Your task to perform on an android device: Open Google Maps and go to "Timeline" Image 0: 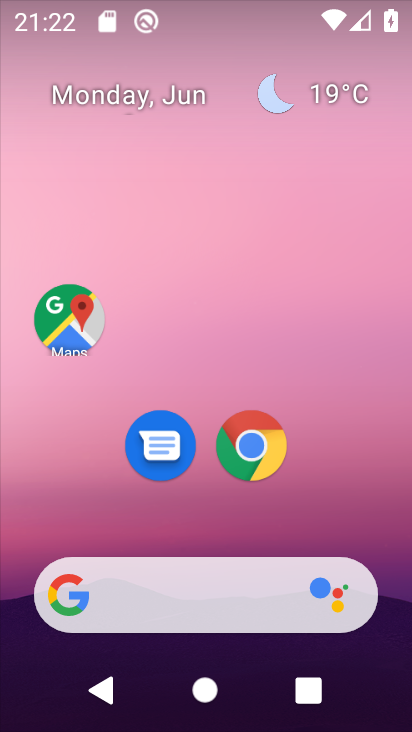
Step 0: click (62, 319)
Your task to perform on an android device: Open Google Maps and go to "Timeline" Image 1: 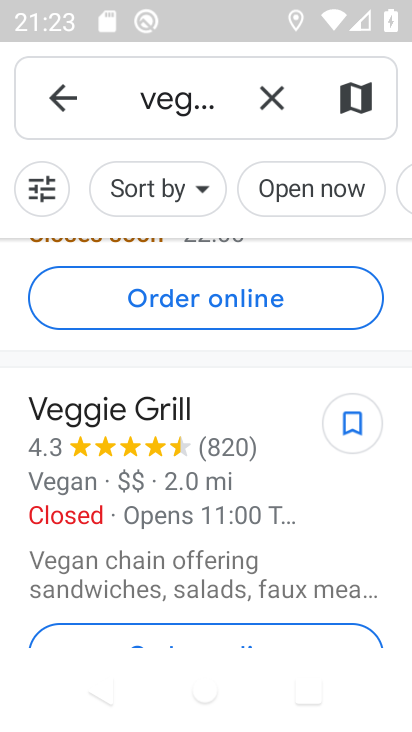
Step 1: click (51, 99)
Your task to perform on an android device: Open Google Maps and go to "Timeline" Image 2: 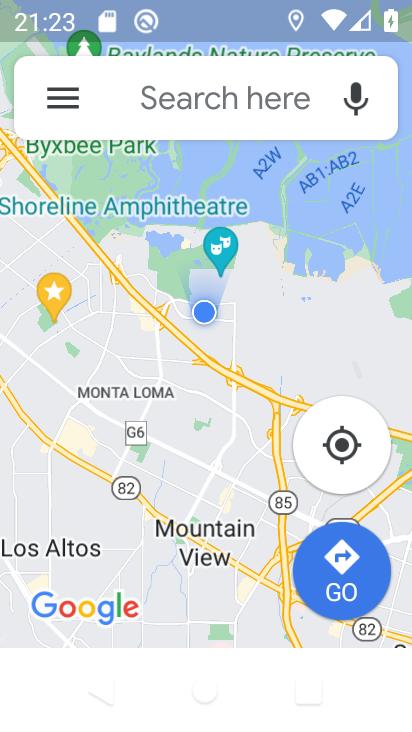
Step 2: click (56, 103)
Your task to perform on an android device: Open Google Maps and go to "Timeline" Image 3: 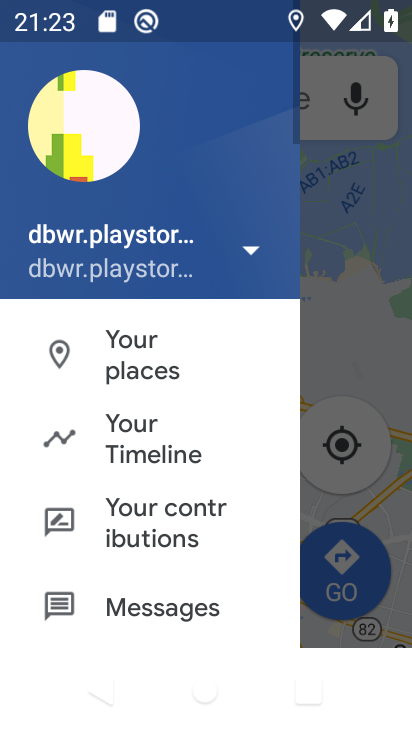
Step 3: click (137, 442)
Your task to perform on an android device: Open Google Maps and go to "Timeline" Image 4: 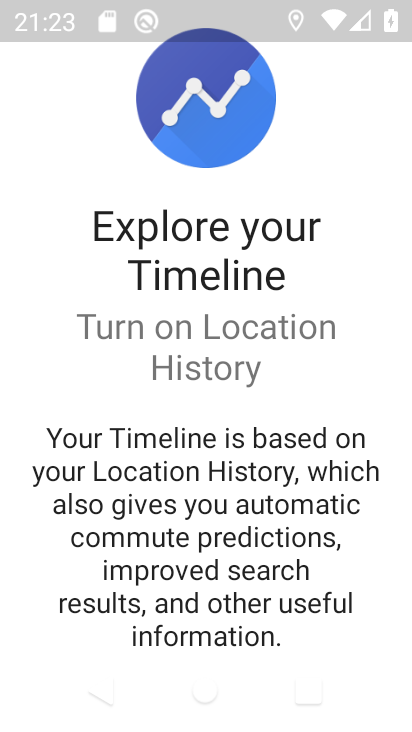
Step 4: drag from (231, 601) to (220, 221)
Your task to perform on an android device: Open Google Maps and go to "Timeline" Image 5: 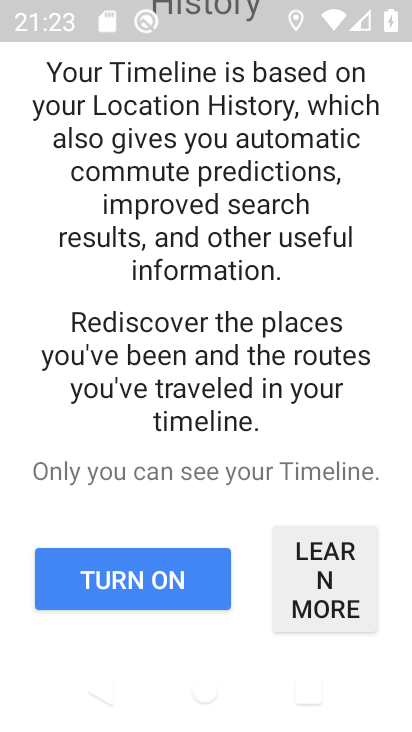
Step 5: click (143, 583)
Your task to perform on an android device: Open Google Maps and go to "Timeline" Image 6: 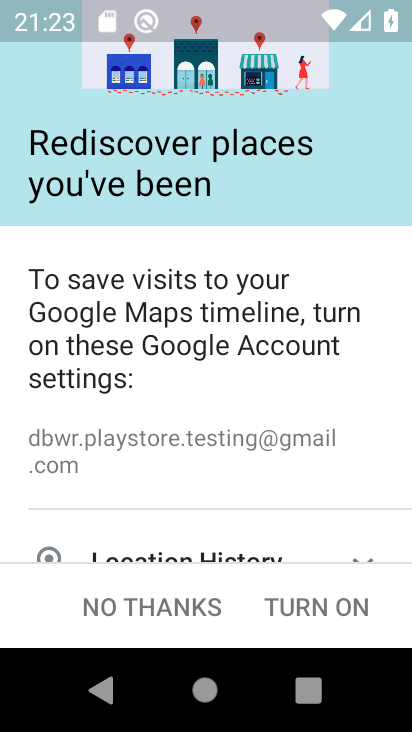
Step 6: drag from (229, 517) to (247, 142)
Your task to perform on an android device: Open Google Maps and go to "Timeline" Image 7: 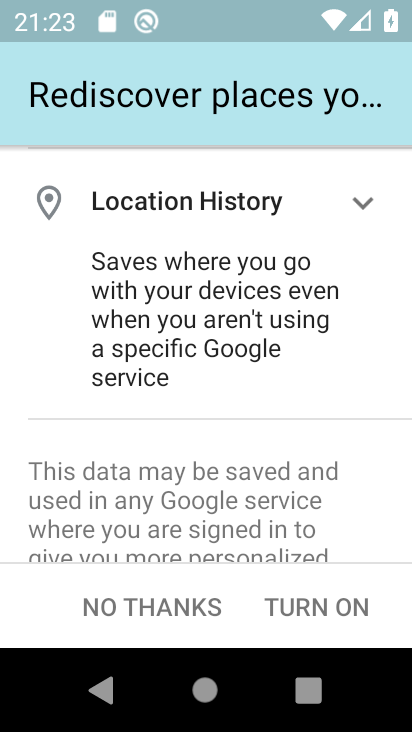
Step 7: drag from (211, 494) to (208, 124)
Your task to perform on an android device: Open Google Maps and go to "Timeline" Image 8: 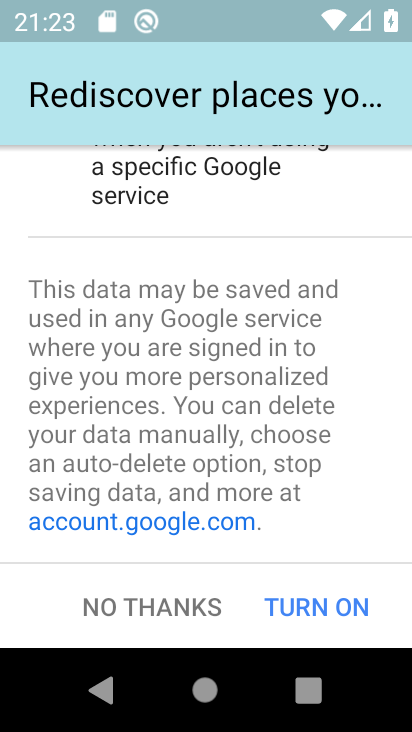
Step 8: click (333, 613)
Your task to perform on an android device: Open Google Maps and go to "Timeline" Image 9: 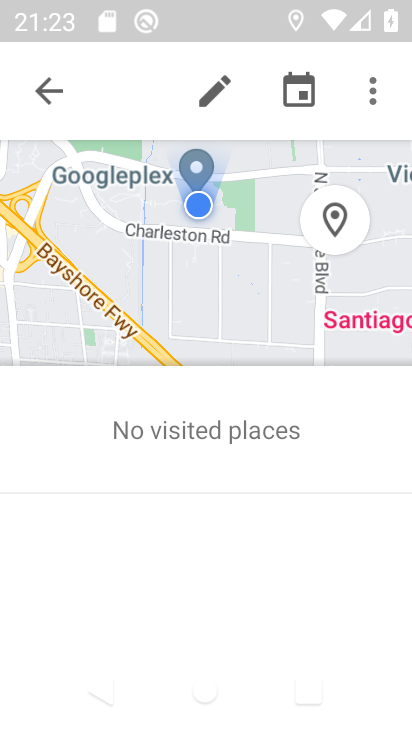
Step 9: task complete